Your task to perform on an android device: Go to calendar. Show me events next week Image 0: 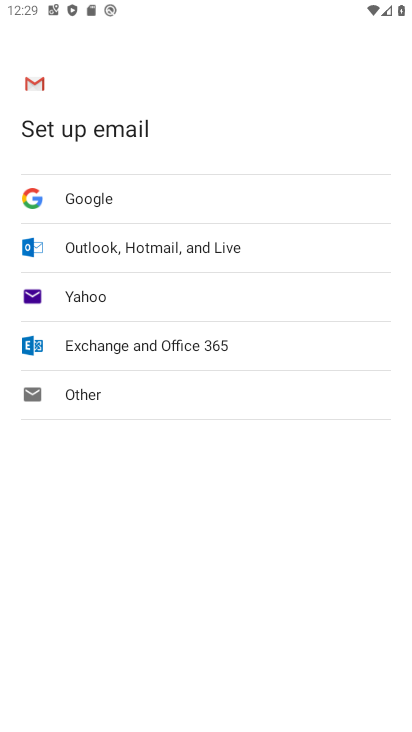
Step 0: press home button
Your task to perform on an android device: Go to calendar. Show me events next week Image 1: 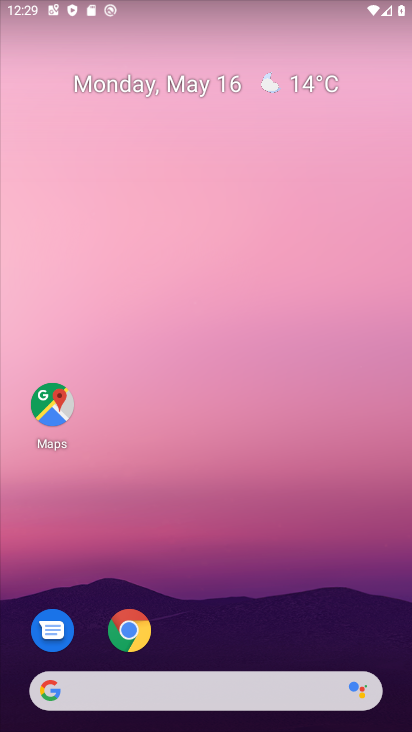
Step 1: drag from (339, 606) to (317, 116)
Your task to perform on an android device: Go to calendar. Show me events next week Image 2: 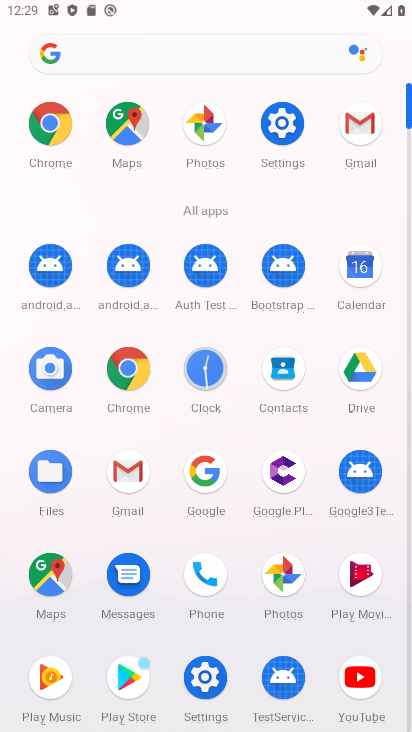
Step 2: click (363, 281)
Your task to perform on an android device: Go to calendar. Show me events next week Image 3: 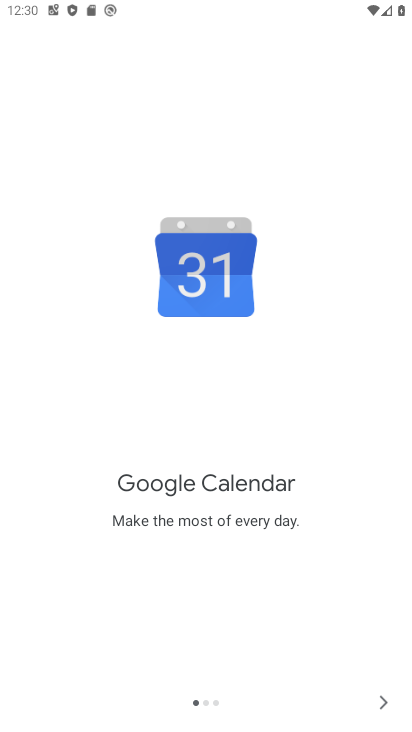
Step 3: click (386, 706)
Your task to perform on an android device: Go to calendar. Show me events next week Image 4: 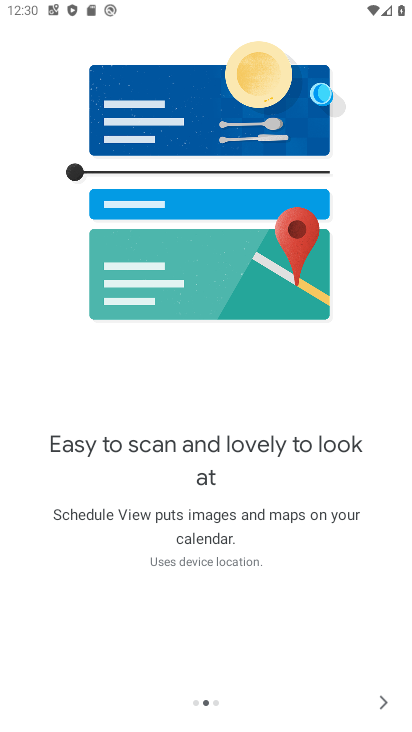
Step 4: click (386, 706)
Your task to perform on an android device: Go to calendar. Show me events next week Image 5: 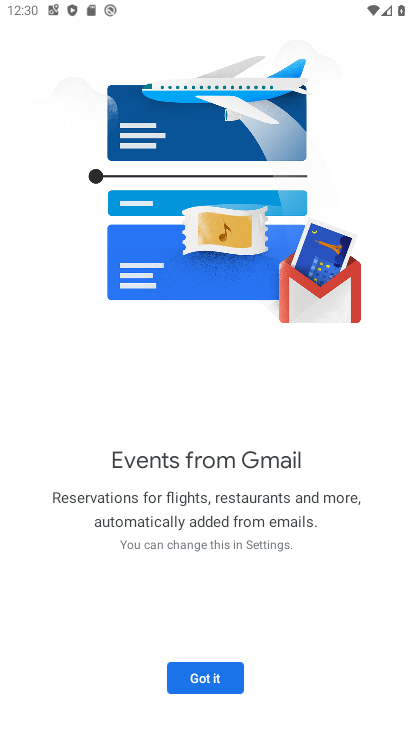
Step 5: click (229, 675)
Your task to perform on an android device: Go to calendar. Show me events next week Image 6: 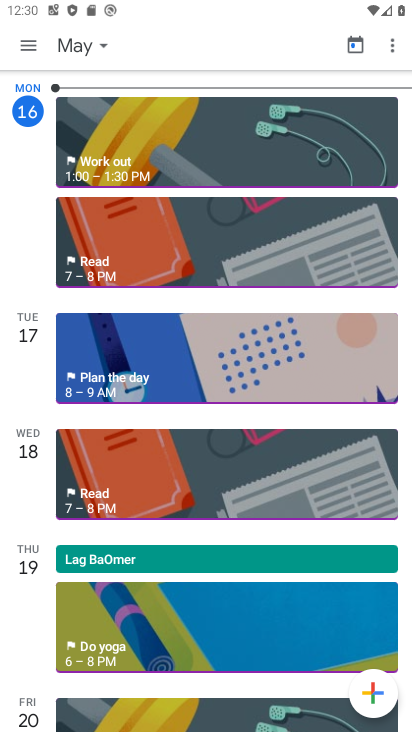
Step 6: click (25, 42)
Your task to perform on an android device: Go to calendar. Show me events next week Image 7: 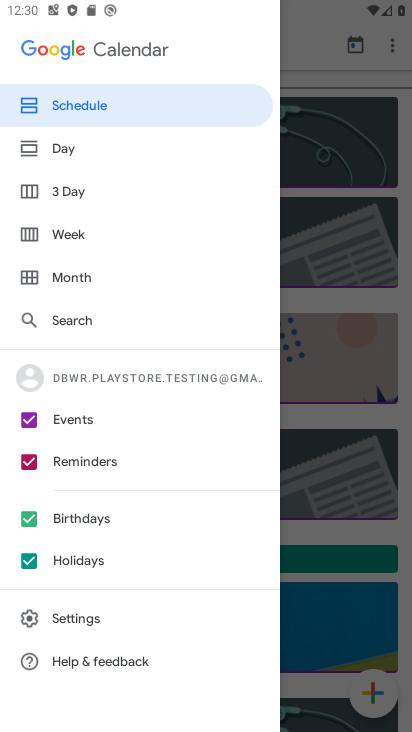
Step 7: click (85, 229)
Your task to perform on an android device: Go to calendar. Show me events next week Image 8: 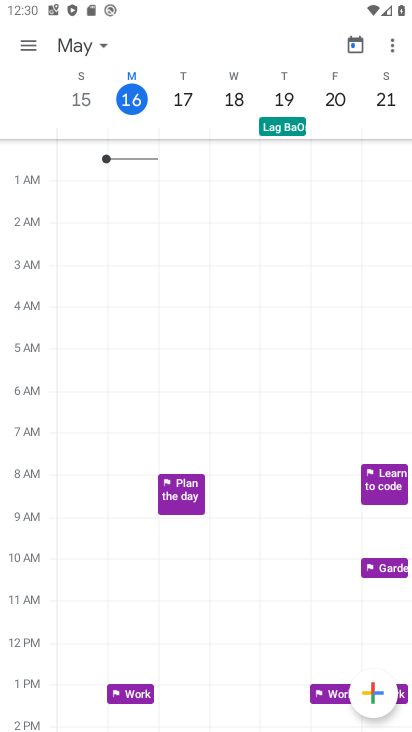
Step 8: click (89, 44)
Your task to perform on an android device: Go to calendar. Show me events next week Image 9: 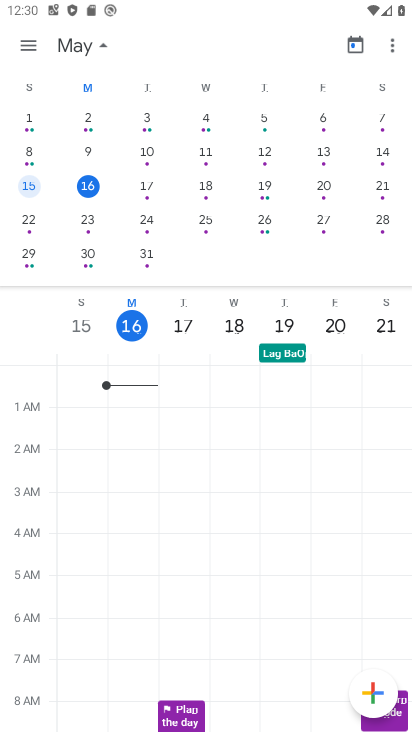
Step 9: click (91, 218)
Your task to perform on an android device: Go to calendar. Show me events next week Image 10: 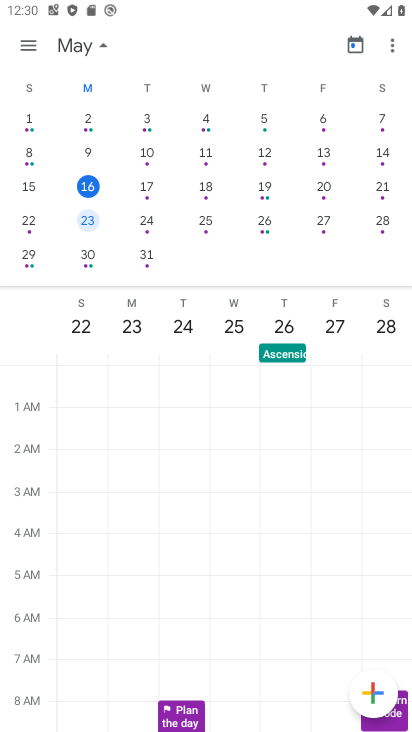
Step 10: click (224, 540)
Your task to perform on an android device: Go to calendar. Show me events next week Image 11: 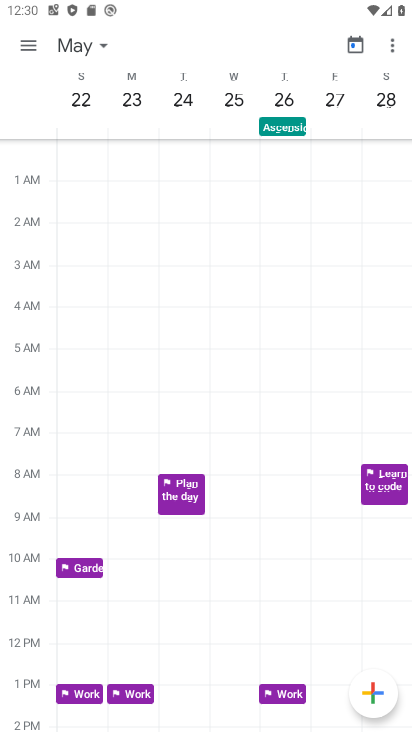
Step 11: task complete